Your task to perform on an android device: snooze an email in the gmail app Image 0: 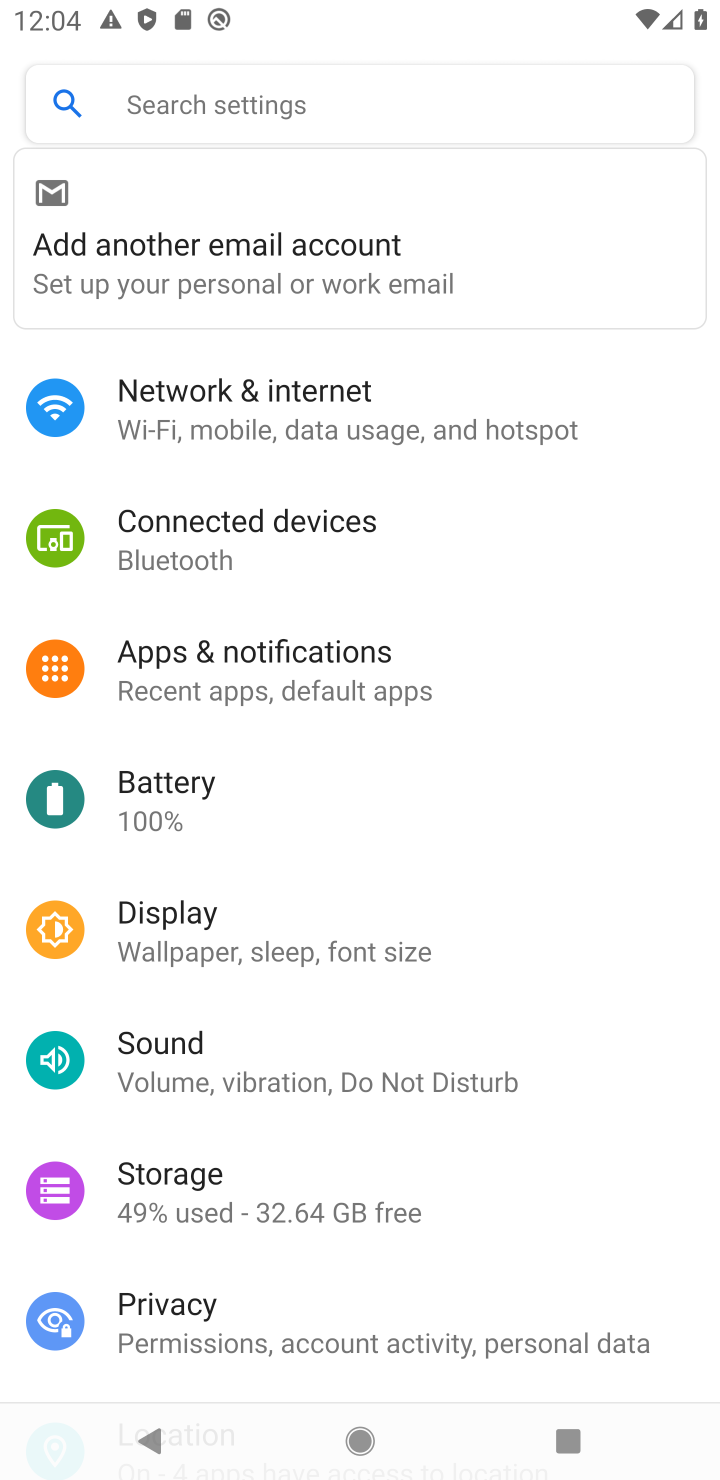
Step 0: press home button
Your task to perform on an android device: snooze an email in the gmail app Image 1: 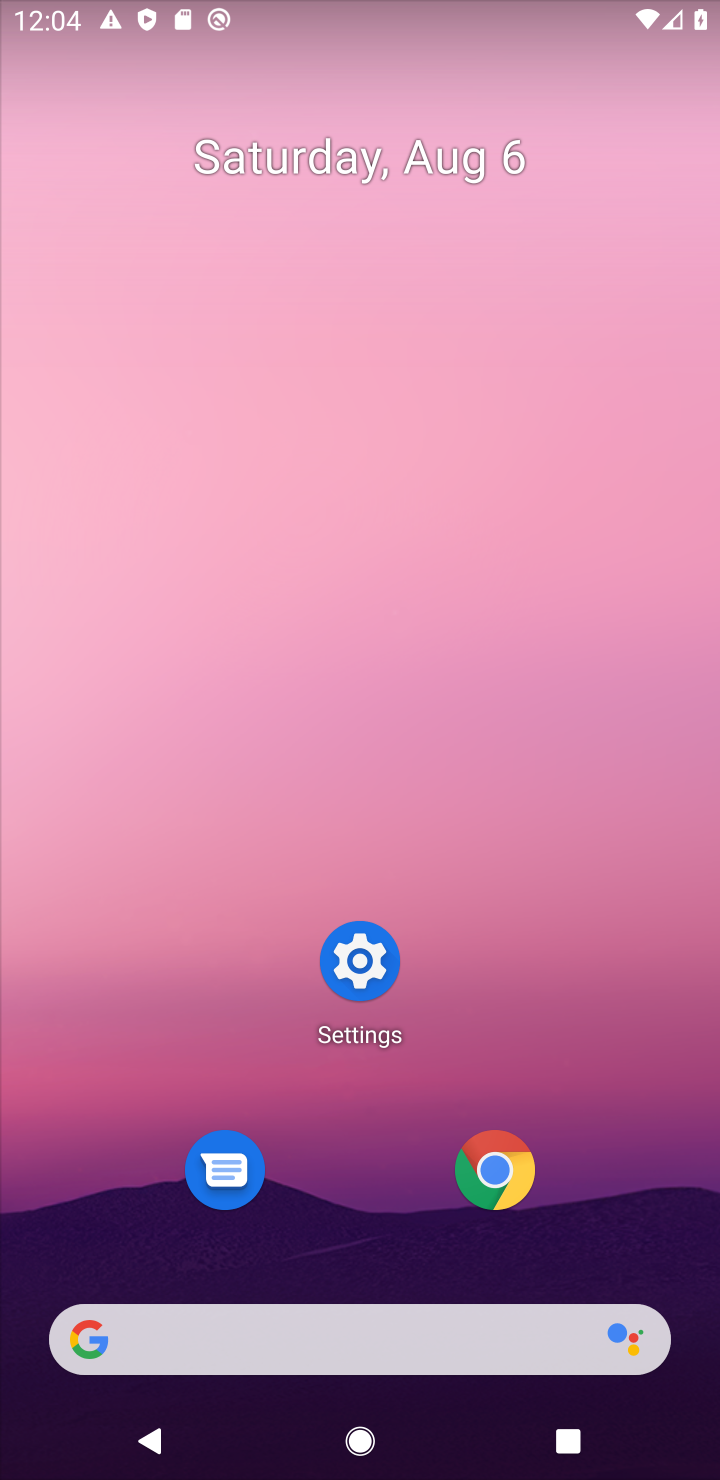
Step 1: drag from (371, 1222) to (417, 29)
Your task to perform on an android device: snooze an email in the gmail app Image 2: 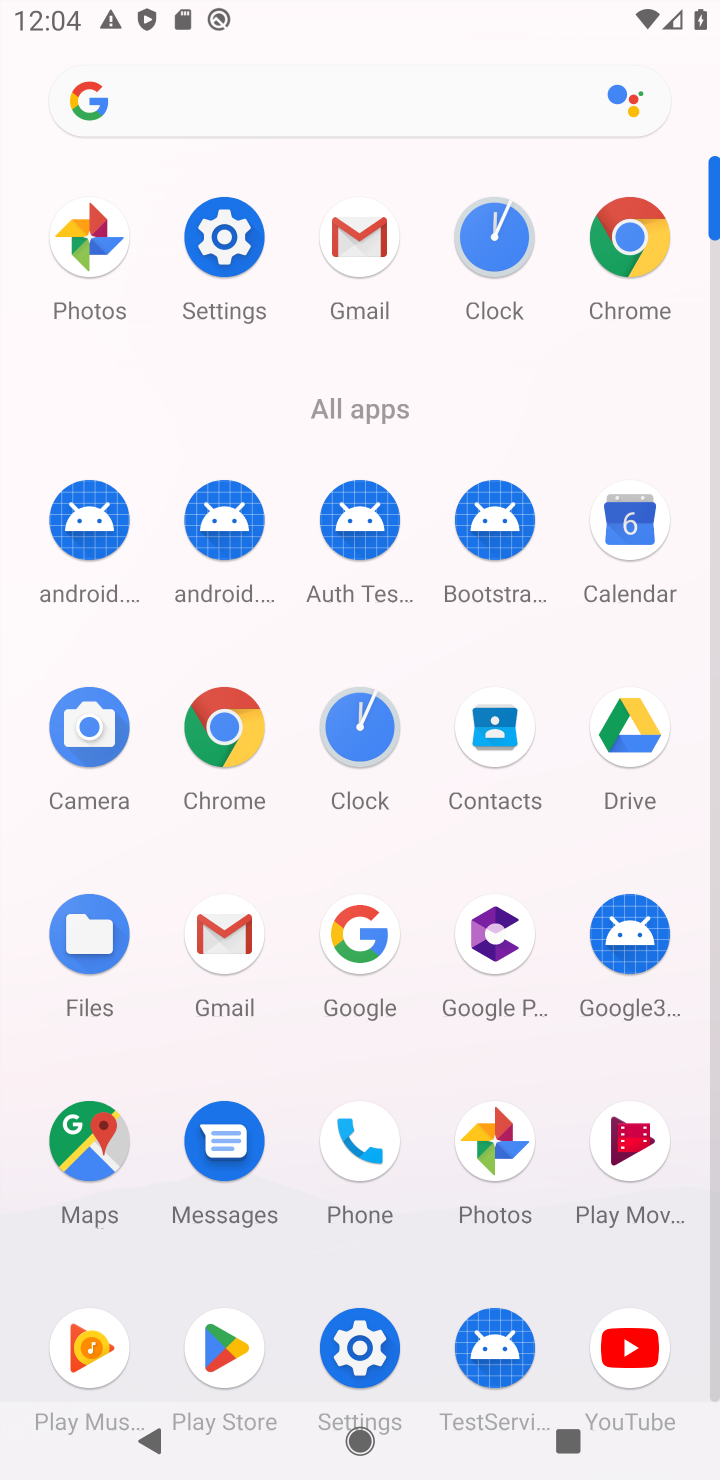
Step 2: click (364, 257)
Your task to perform on an android device: snooze an email in the gmail app Image 3: 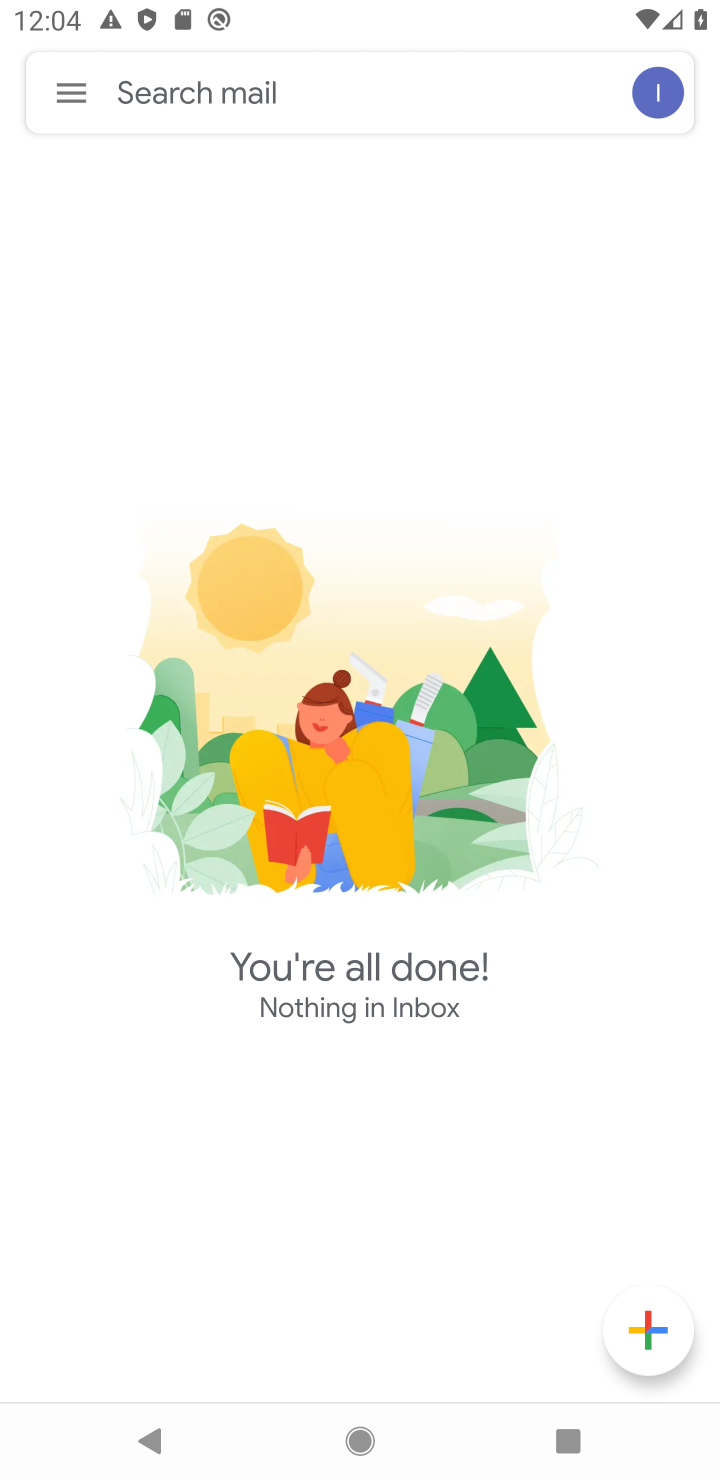
Step 3: click (154, 108)
Your task to perform on an android device: snooze an email in the gmail app Image 4: 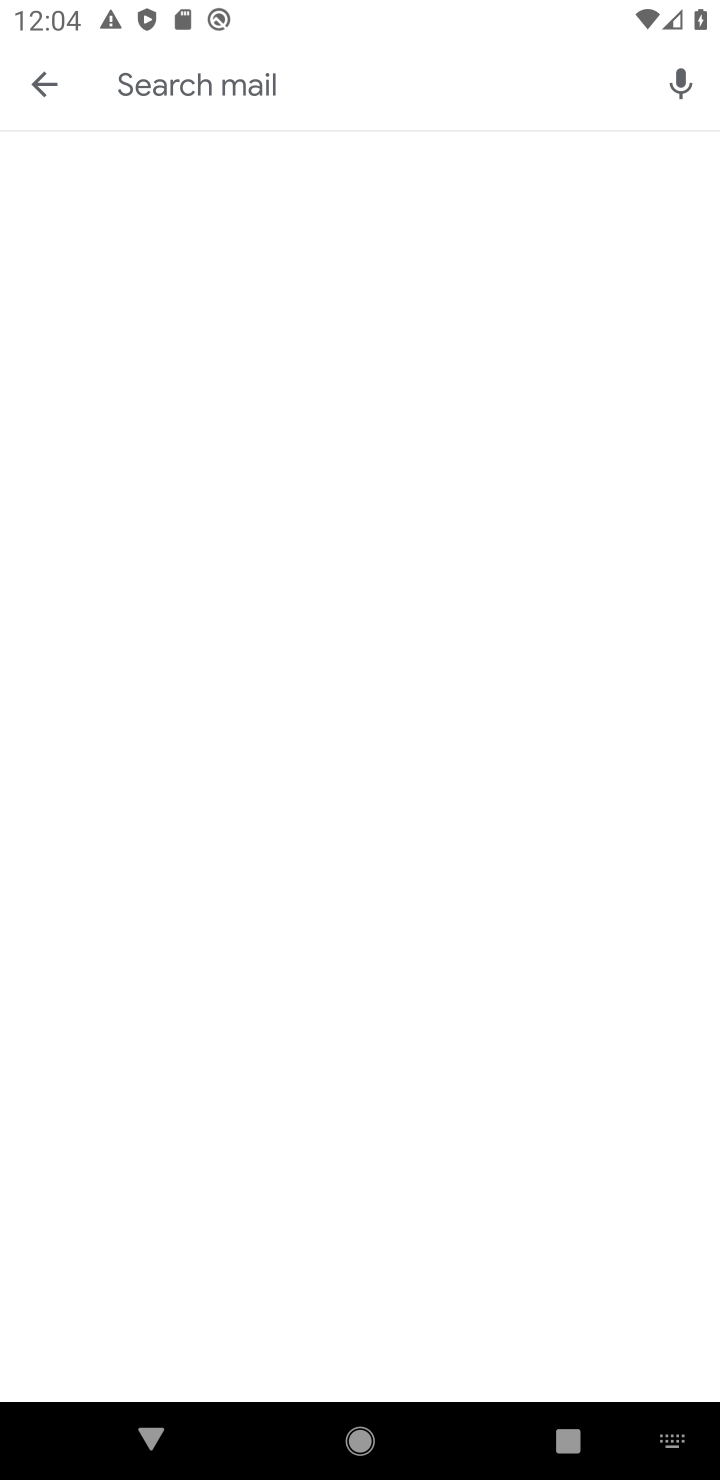
Step 4: click (50, 104)
Your task to perform on an android device: snooze an email in the gmail app Image 5: 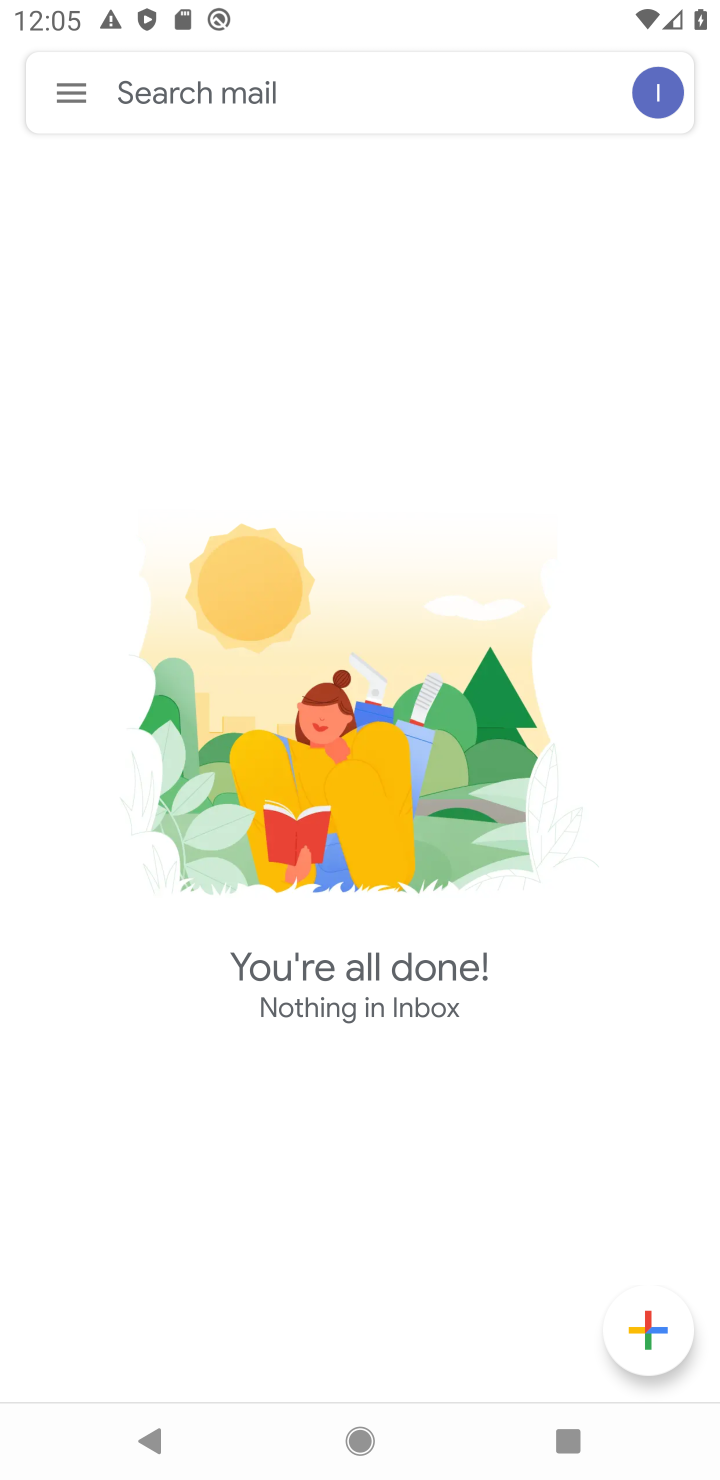
Step 5: click (50, 104)
Your task to perform on an android device: snooze an email in the gmail app Image 6: 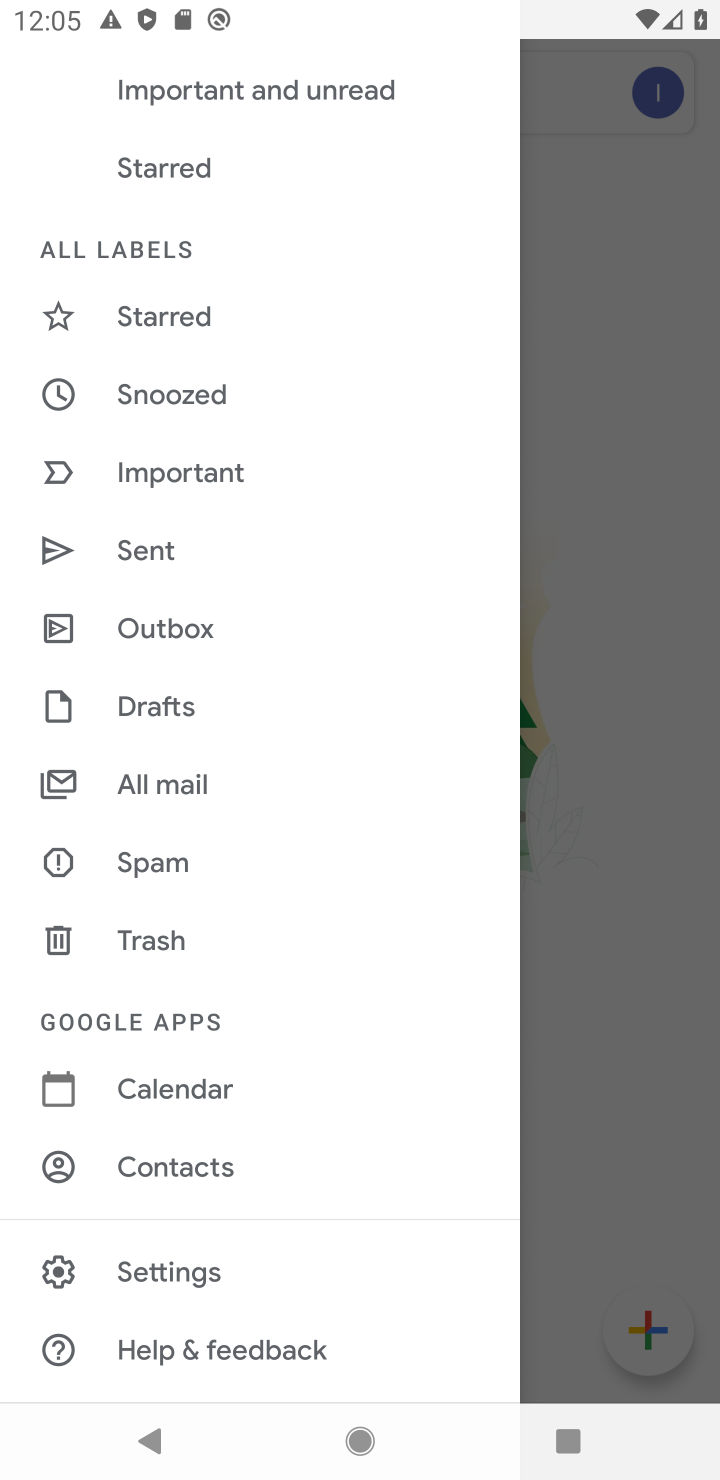
Step 6: click (180, 782)
Your task to perform on an android device: snooze an email in the gmail app Image 7: 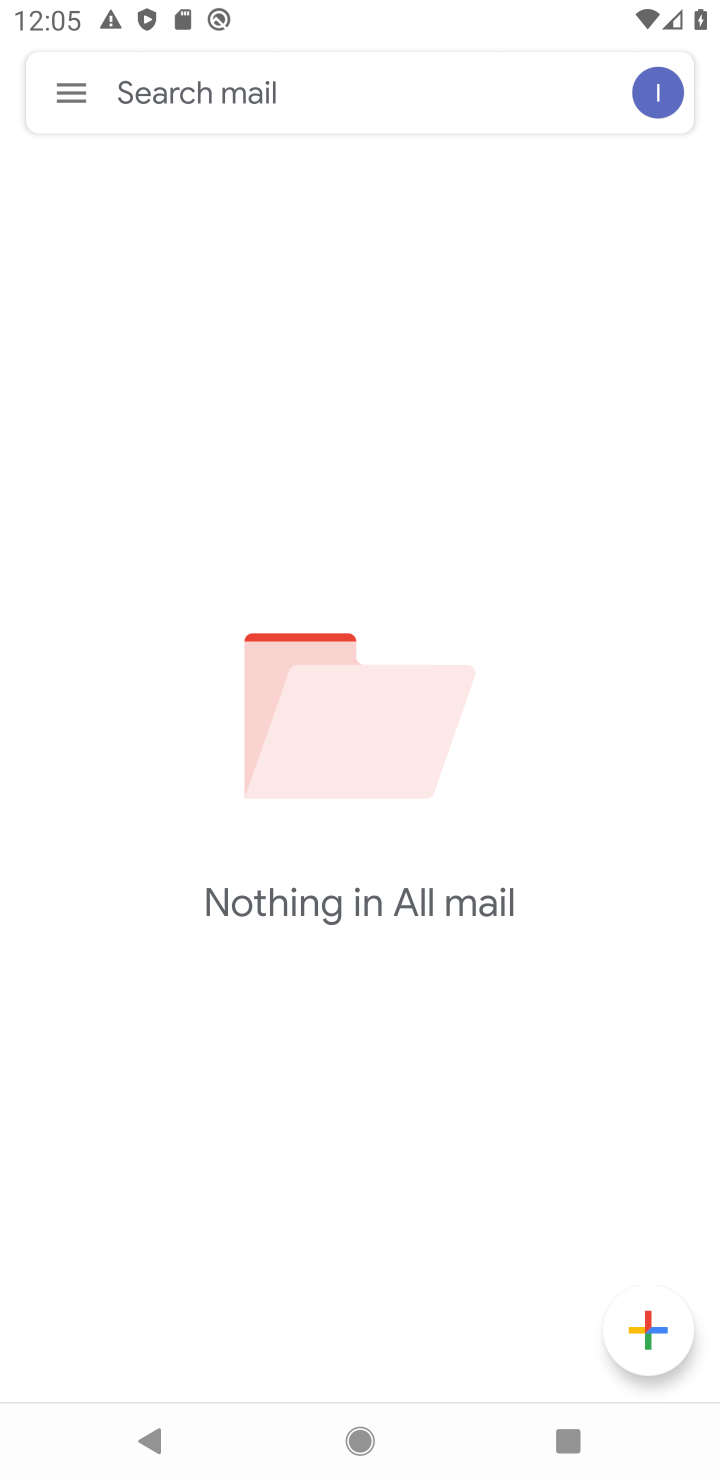
Step 7: task complete